Your task to perform on an android device: change timer sound Image 0: 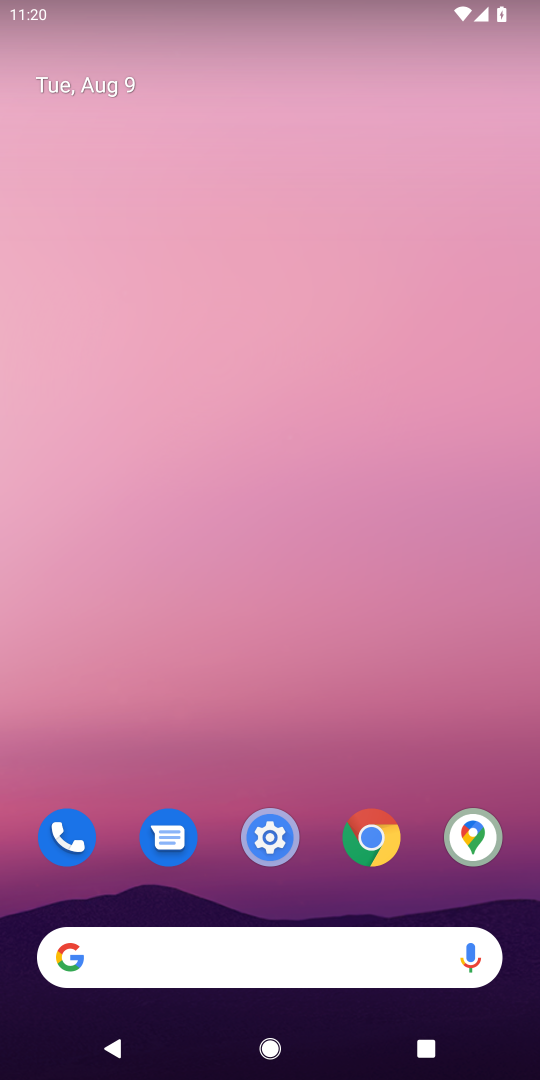
Step 0: drag from (301, 870) to (309, 67)
Your task to perform on an android device: change timer sound Image 1: 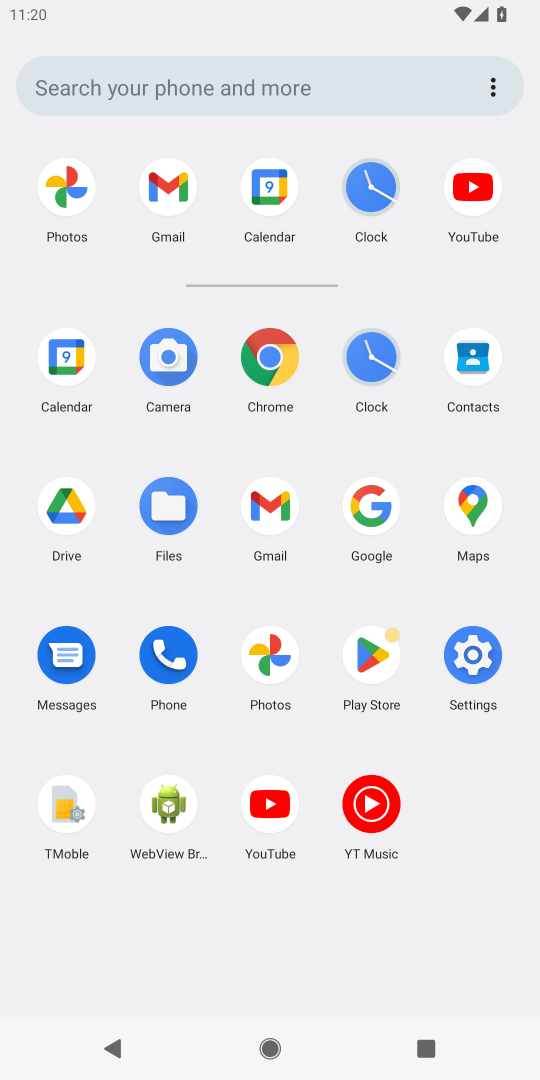
Step 1: click (375, 354)
Your task to perform on an android device: change timer sound Image 2: 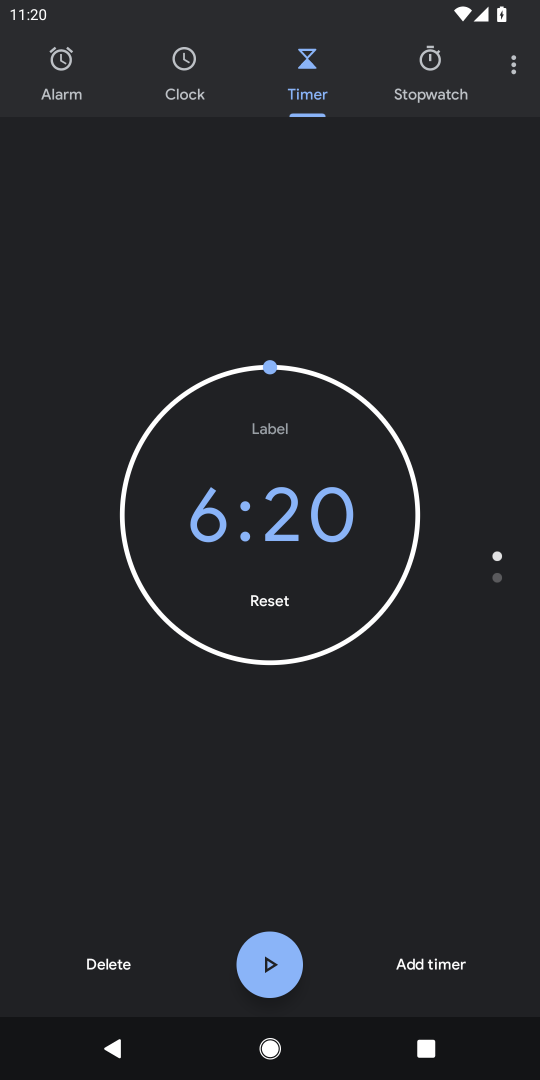
Step 2: click (517, 69)
Your task to perform on an android device: change timer sound Image 3: 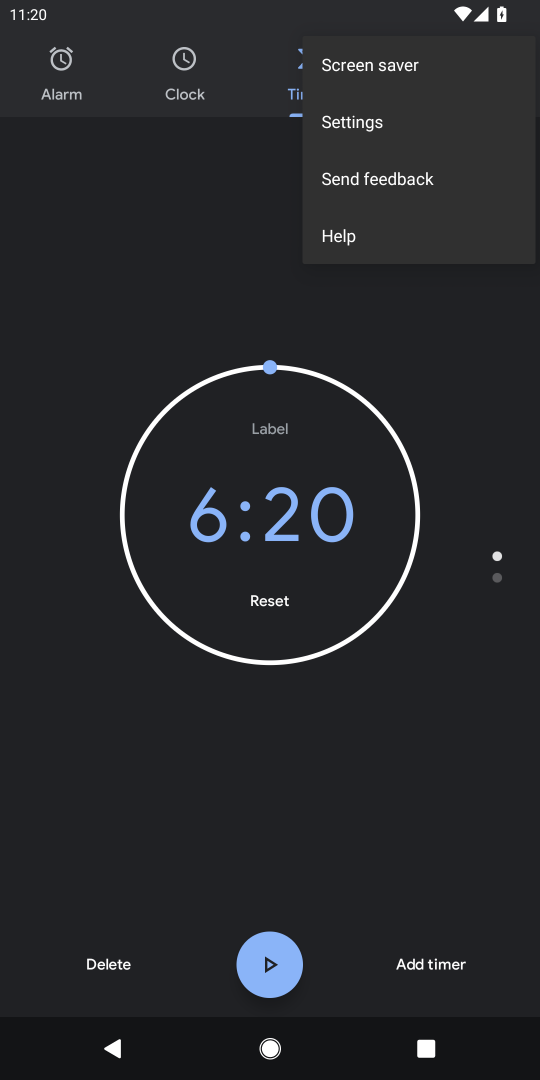
Step 3: click (370, 119)
Your task to perform on an android device: change timer sound Image 4: 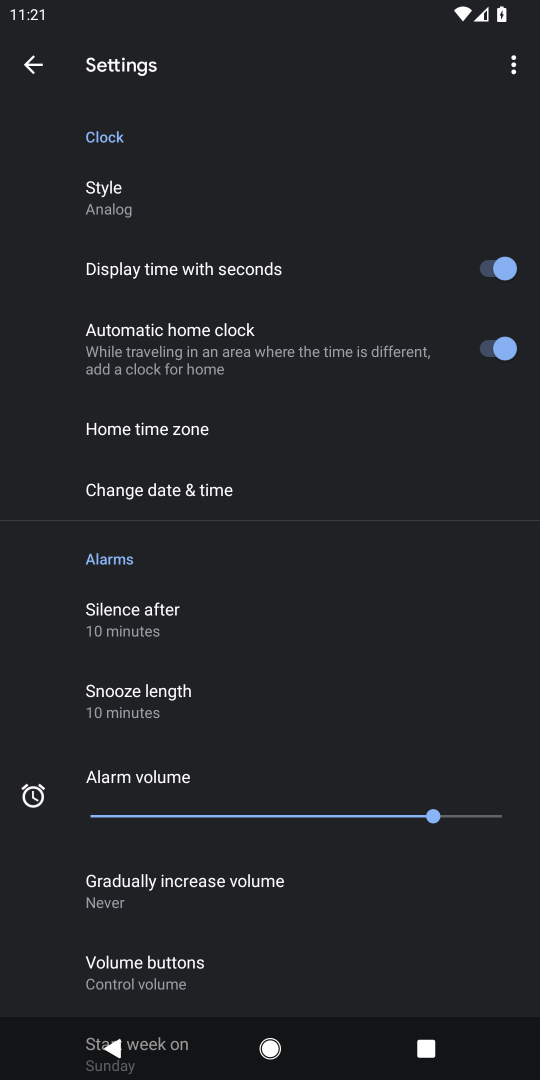
Step 4: drag from (174, 912) to (170, 446)
Your task to perform on an android device: change timer sound Image 5: 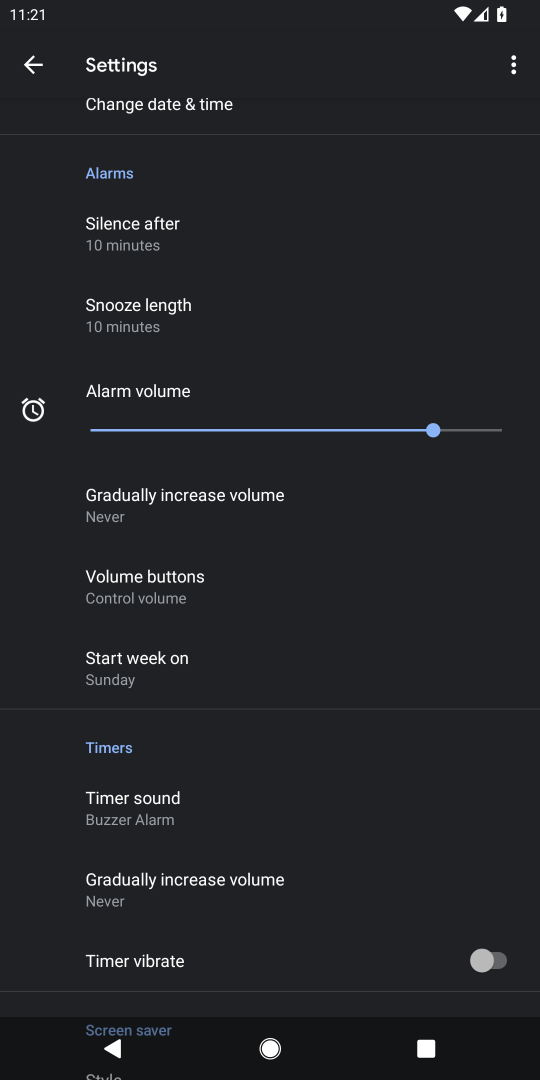
Step 5: click (154, 801)
Your task to perform on an android device: change timer sound Image 6: 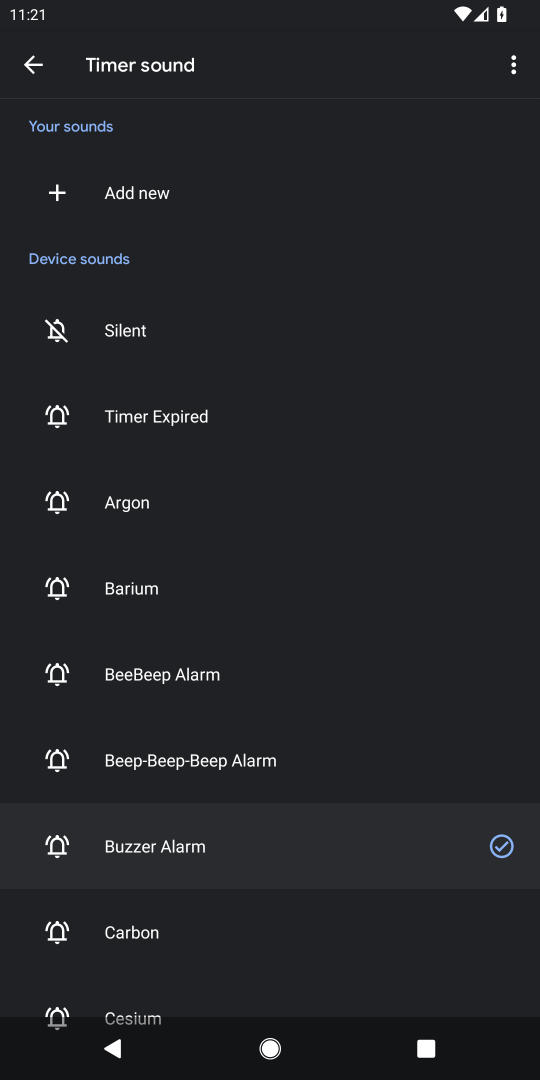
Step 6: click (111, 588)
Your task to perform on an android device: change timer sound Image 7: 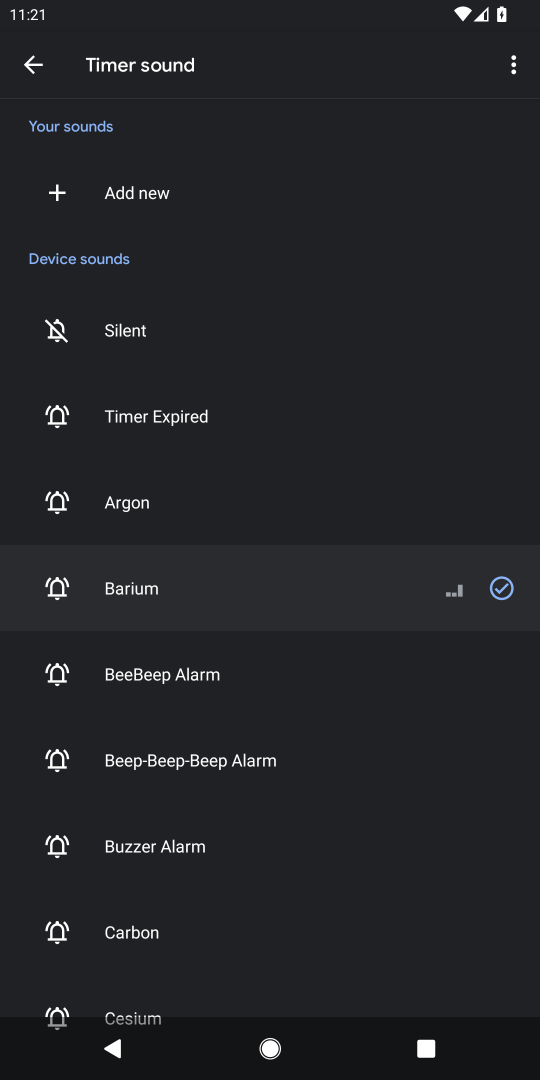
Step 7: task complete